Your task to perform on an android device: Open Youtube and go to "Your channel" Image 0: 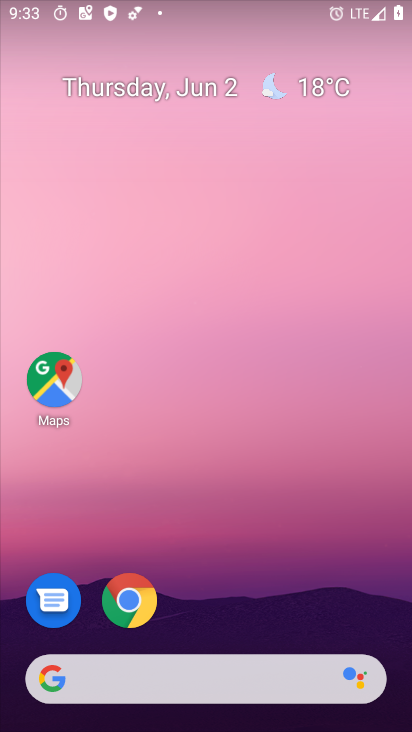
Step 0: drag from (315, 577) to (334, 207)
Your task to perform on an android device: Open Youtube and go to "Your channel" Image 1: 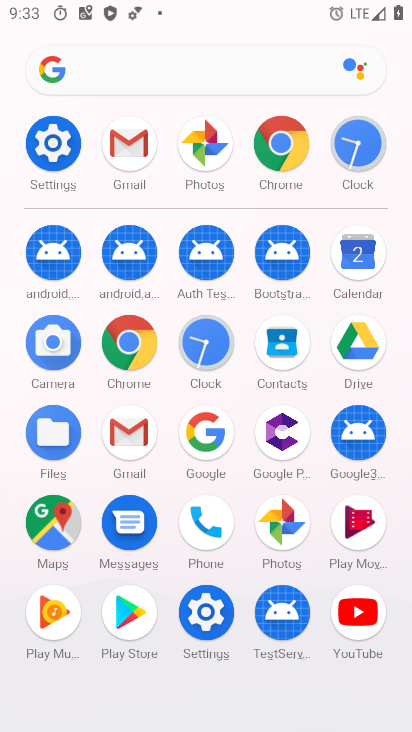
Step 1: click (361, 604)
Your task to perform on an android device: Open Youtube and go to "Your channel" Image 2: 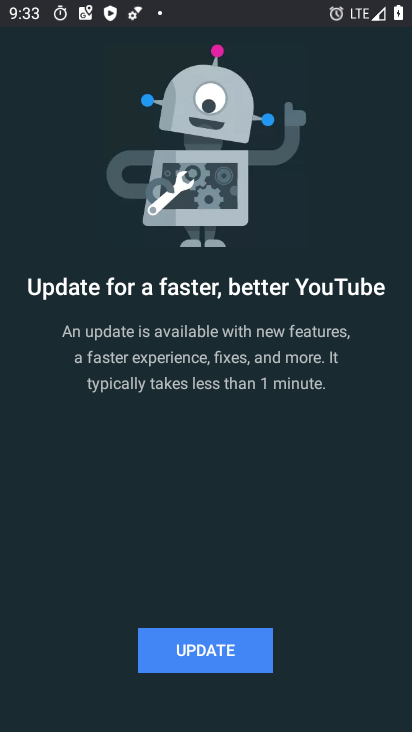
Step 2: click (260, 652)
Your task to perform on an android device: Open Youtube and go to "Your channel" Image 3: 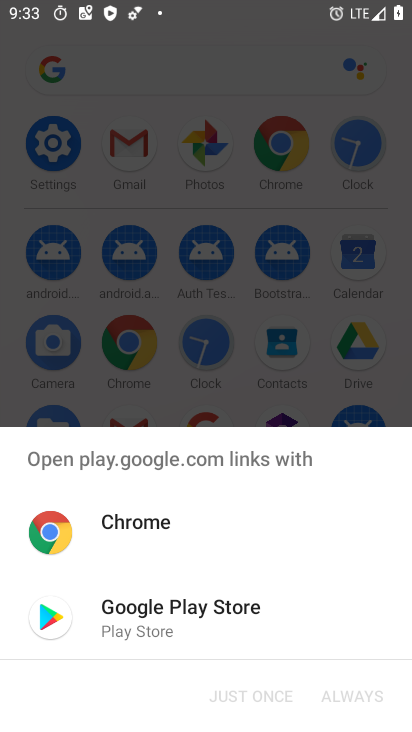
Step 3: click (215, 622)
Your task to perform on an android device: Open Youtube and go to "Your channel" Image 4: 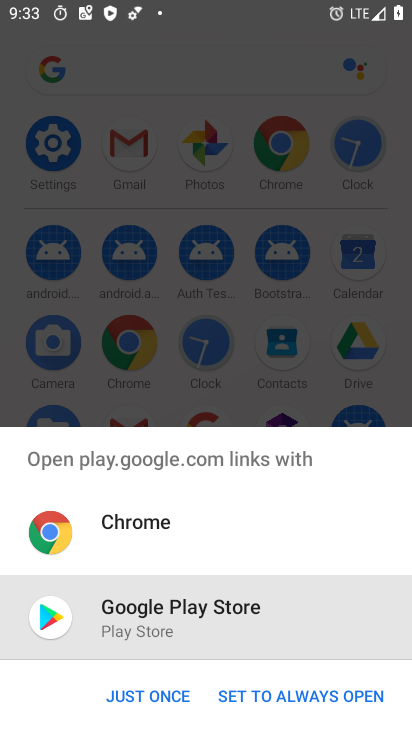
Step 4: click (179, 696)
Your task to perform on an android device: Open Youtube and go to "Your channel" Image 5: 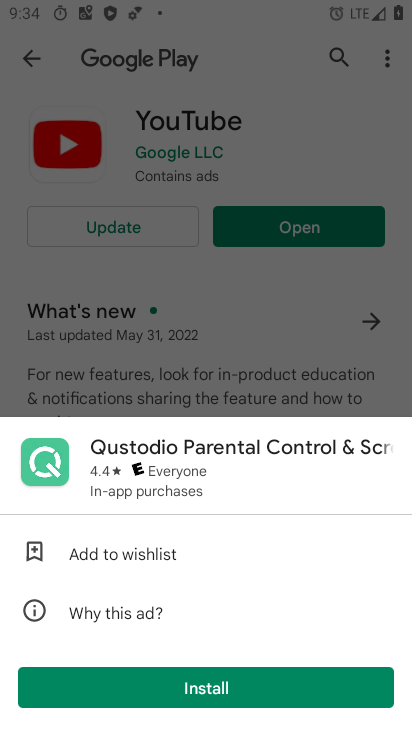
Step 5: press back button
Your task to perform on an android device: Open Youtube and go to "Your channel" Image 6: 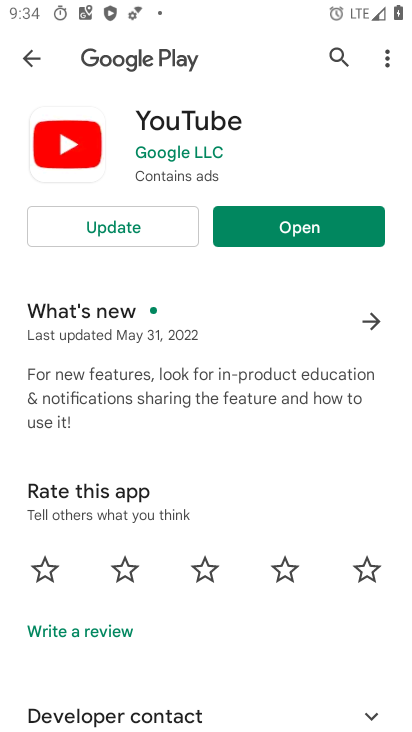
Step 6: click (149, 226)
Your task to perform on an android device: Open Youtube and go to "Your channel" Image 7: 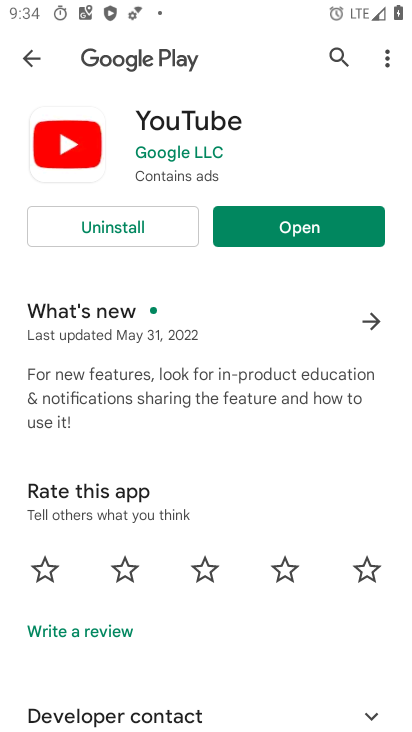
Step 7: click (280, 234)
Your task to perform on an android device: Open Youtube and go to "Your channel" Image 8: 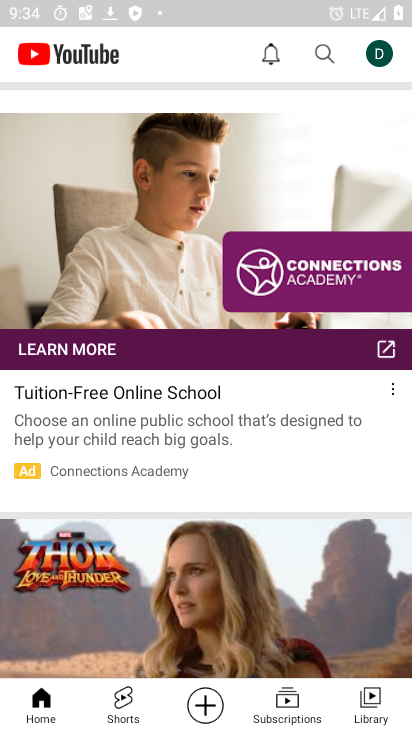
Step 8: click (368, 54)
Your task to perform on an android device: Open Youtube and go to "Your channel" Image 9: 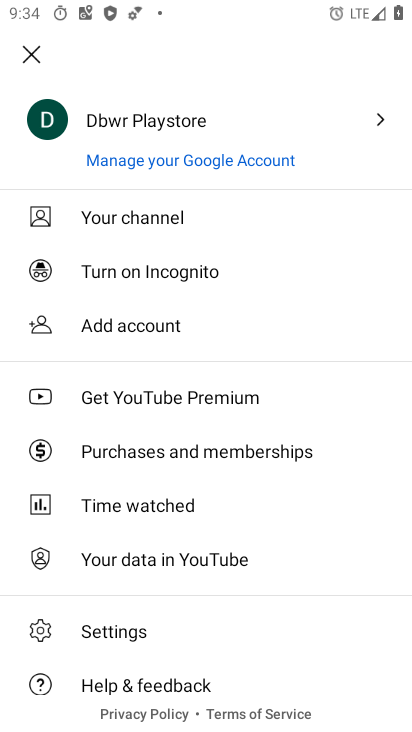
Step 9: click (192, 218)
Your task to perform on an android device: Open Youtube and go to "Your channel" Image 10: 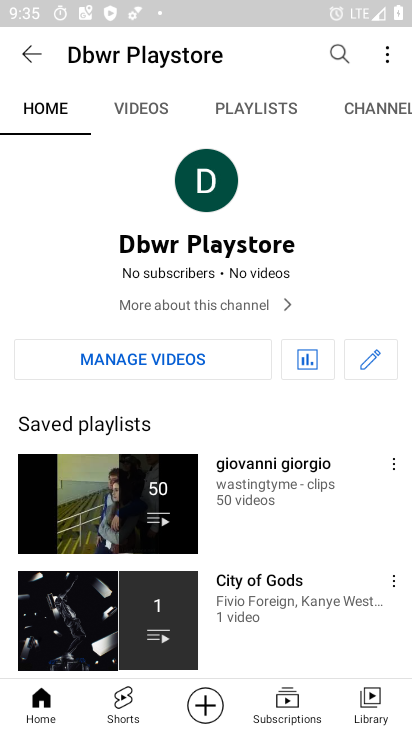
Step 10: task complete